Your task to perform on an android device: Go to notification settings Image 0: 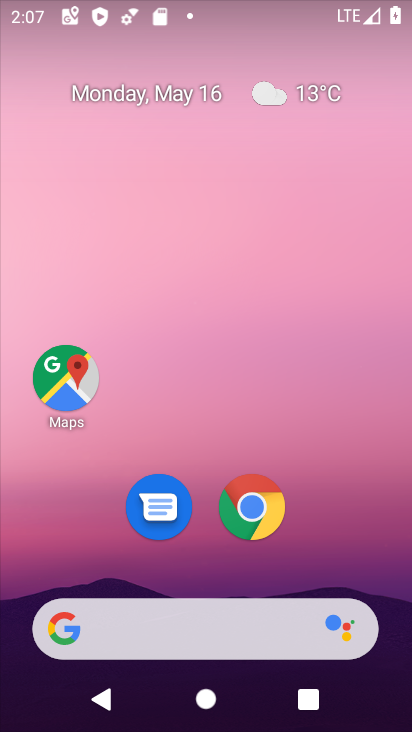
Step 0: drag from (287, 341) to (188, 17)
Your task to perform on an android device: Go to notification settings Image 1: 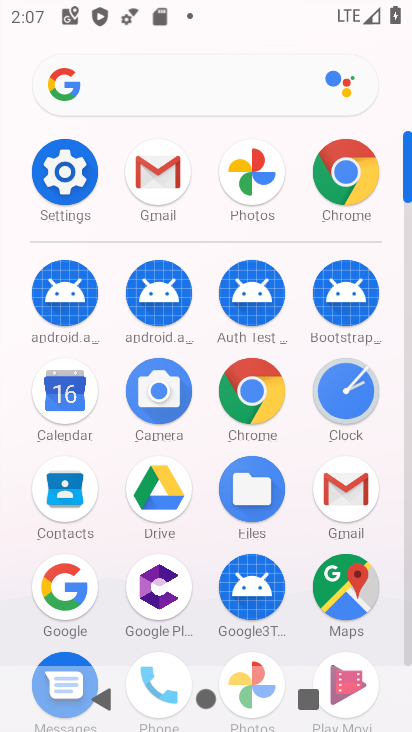
Step 1: click (53, 179)
Your task to perform on an android device: Go to notification settings Image 2: 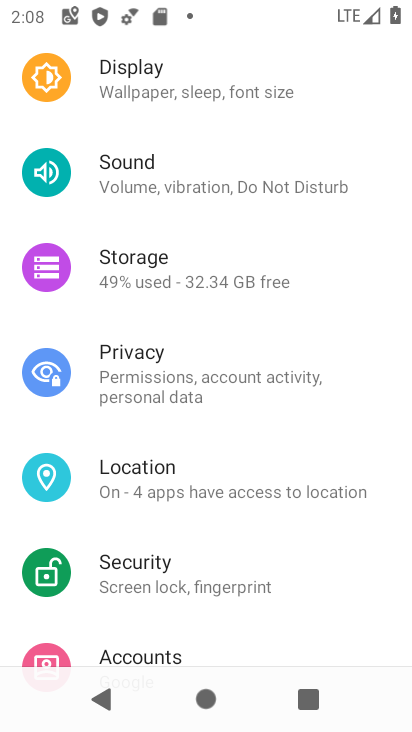
Step 2: drag from (220, 190) to (199, 543)
Your task to perform on an android device: Go to notification settings Image 3: 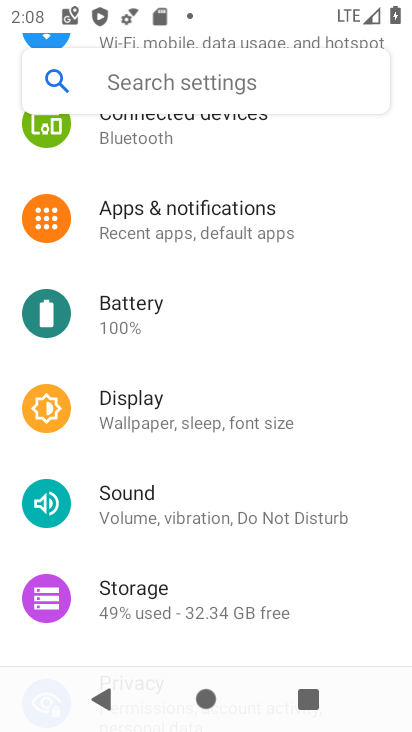
Step 3: click (189, 205)
Your task to perform on an android device: Go to notification settings Image 4: 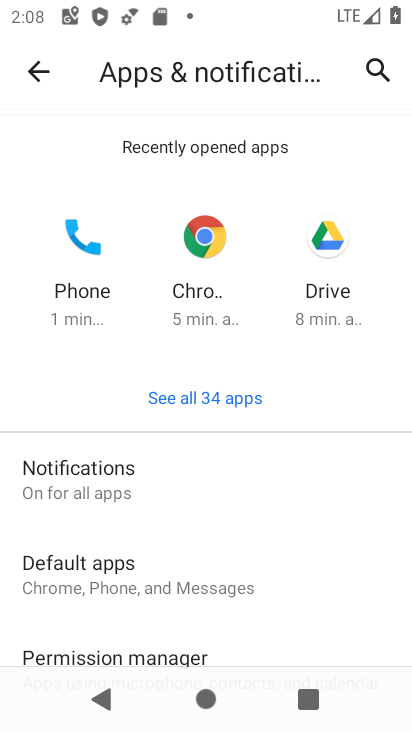
Step 4: task complete